Your task to perform on an android device: change text size in settings app Image 0: 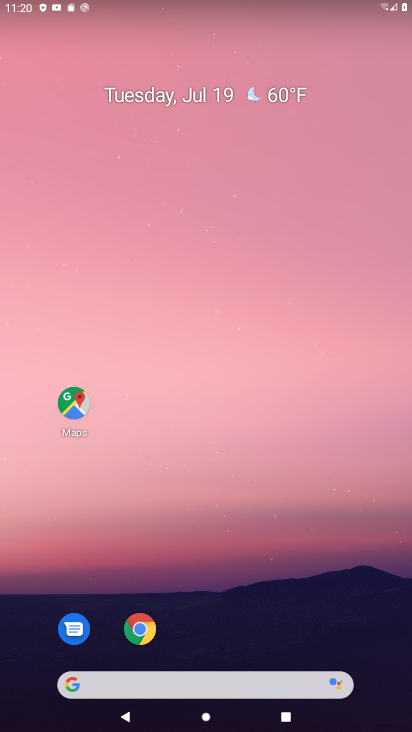
Step 0: drag from (259, 587) to (259, 155)
Your task to perform on an android device: change text size in settings app Image 1: 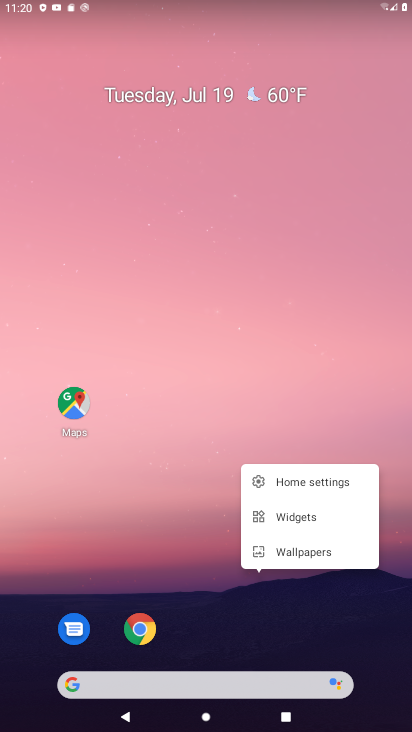
Step 1: click (234, 220)
Your task to perform on an android device: change text size in settings app Image 2: 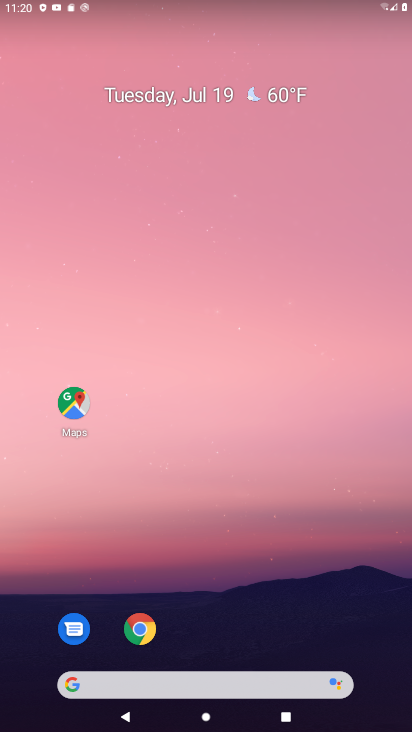
Step 2: drag from (210, 590) to (210, 64)
Your task to perform on an android device: change text size in settings app Image 3: 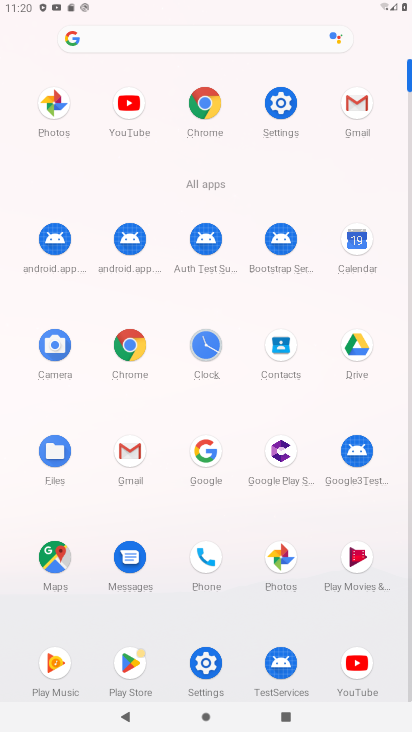
Step 3: click (213, 652)
Your task to perform on an android device: change text size in settings app Image 4: 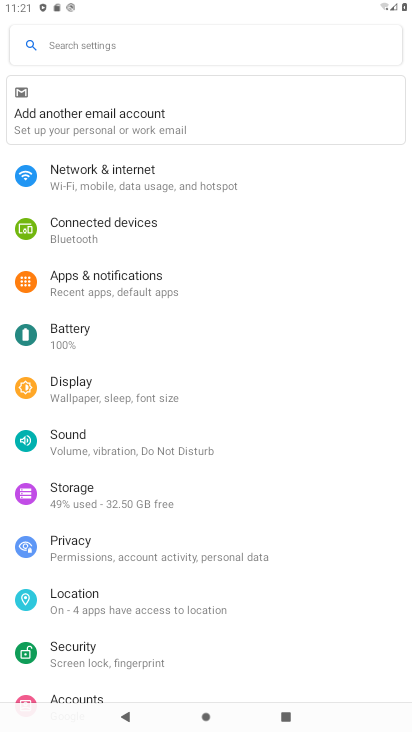
Step 4: click (138, 386)
Your task to perform on an android device: change text size in settings app Image 5: 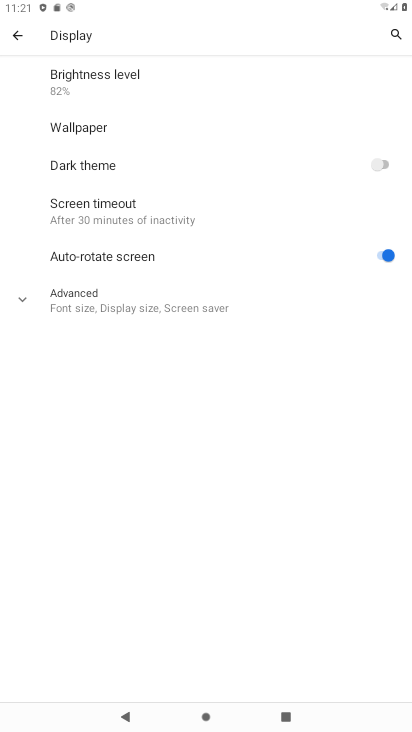
Step 5: click (169, 304)
Your task to perform on an android device: change text size in settings app Image 6: 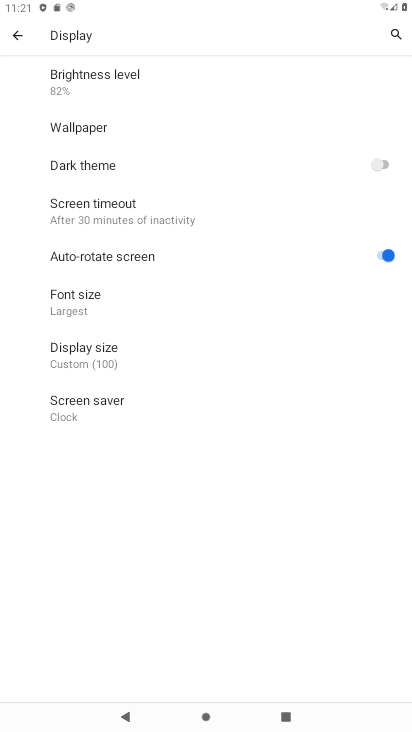
Step 6: click (108, 308)
Your task to perform on an android device: change text size in settings app Image 7: 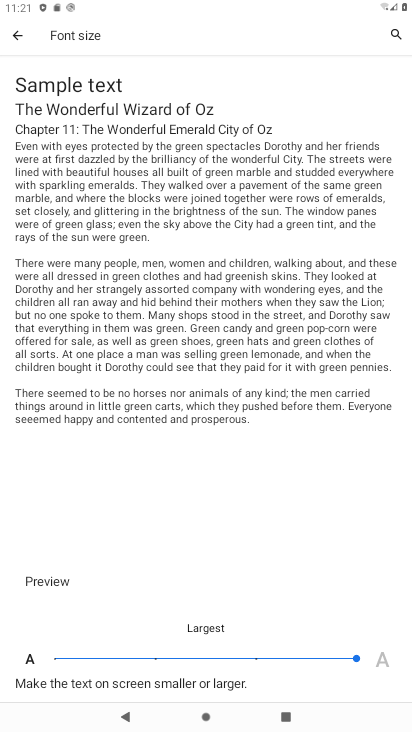
Step 7: click (257, 658)
Your task to perform on an android device: change text size in settings app Image 8: 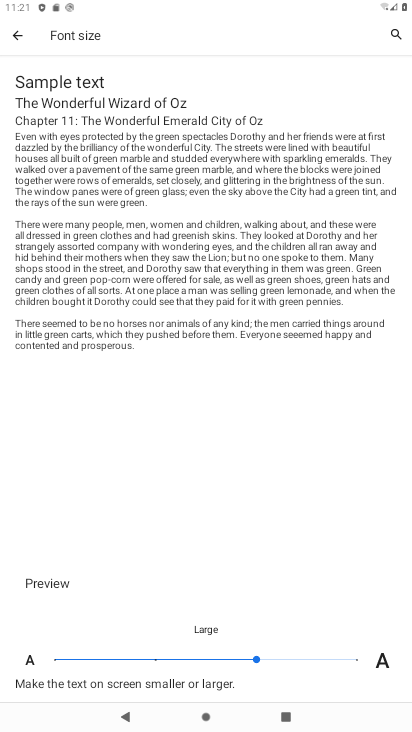
Step 8: task complete